Your task to perform on an android device: change the clock style Image 0: 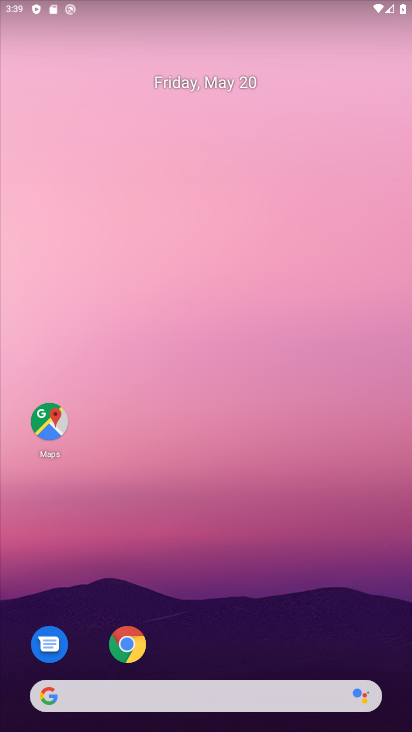
Step 0: drag from (263, 620) to (293, 36)
Your task to perform on an android device: change the clock style Image 1: 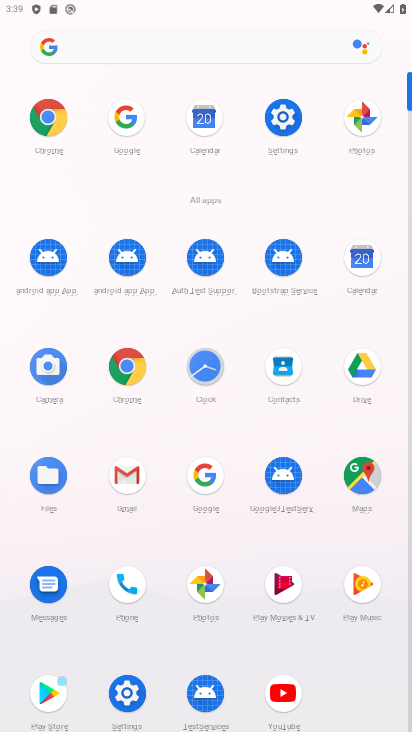
Step 1: click (196, 386)
Your task to perform on an android device: change the clock style Image 2: 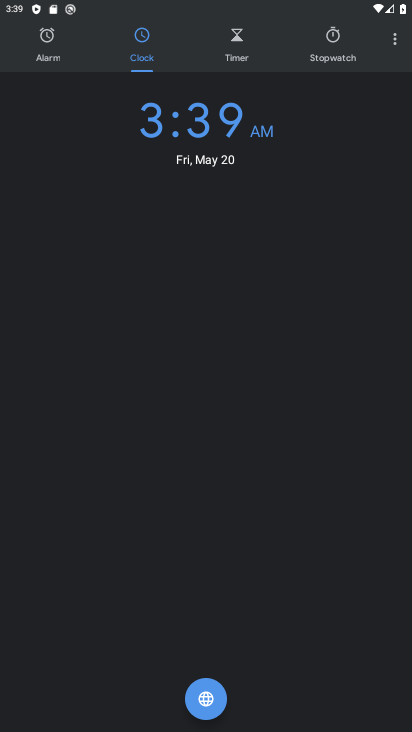
Step 2: click (393, 37)
Your task to perform on an android device: change the clock style Image 3: 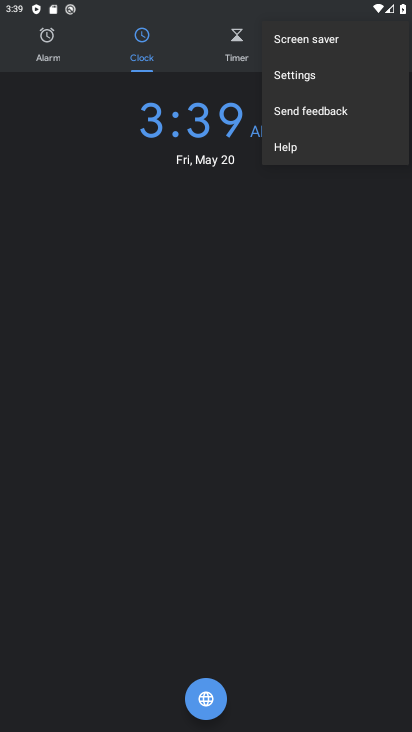
Step 3: click (324, 74)
Your task to perform on an android device: change the clock style Image 4: 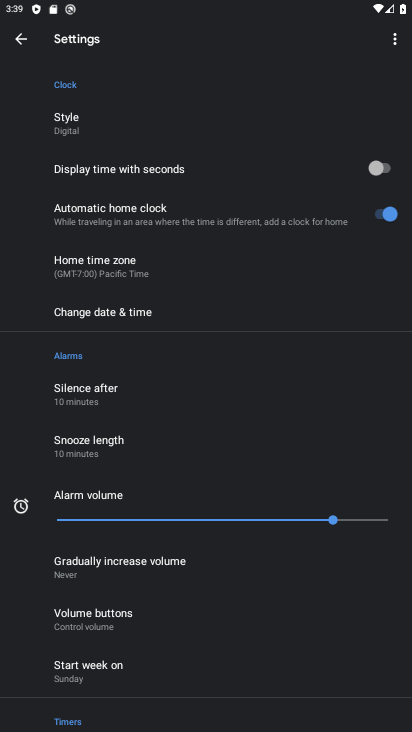
Step 4: click (143, 127)
Your task to perform on an android device: change the clock style Image 5: 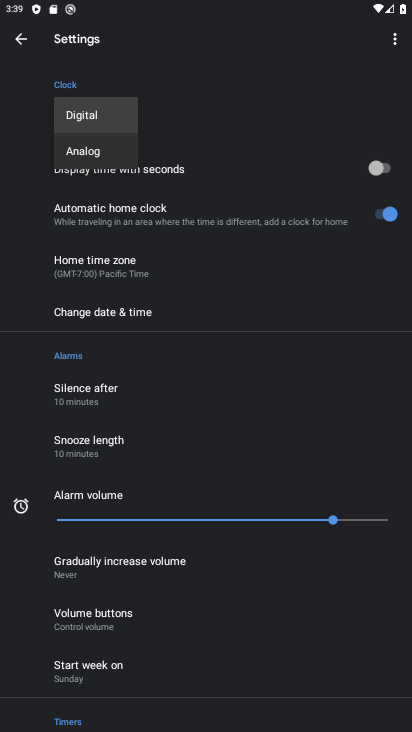
Step 5: click (105, 152)
Your task to perform on an android device: change the clock style Image 6: 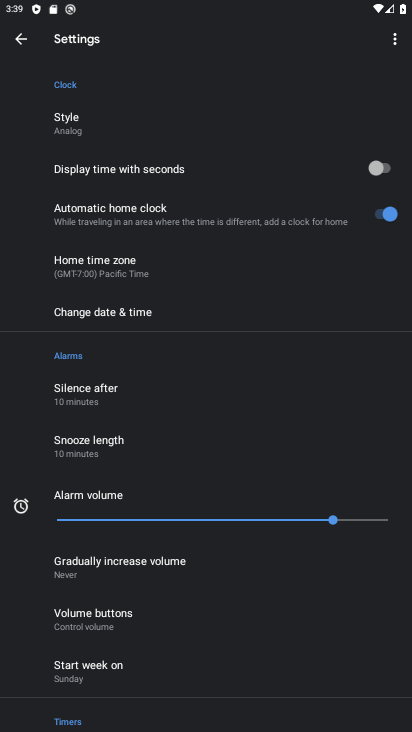
Step 6: task complete